Your task to perform on an android device: Search for "macbook pro" on amazon.com, select the first entry, and add it to the cart. Image 0: 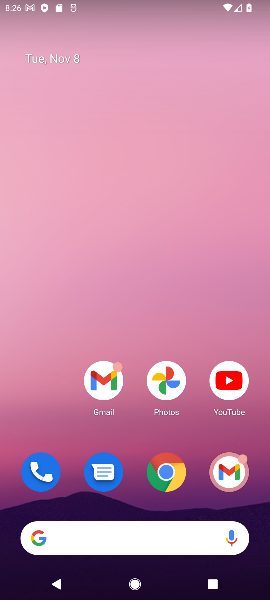
Step 0: click (171, 467)
Your task to perform on an android device: Search for "macbook pro" on amazon.com, select the first entry, and add it to the cart. Image 1: 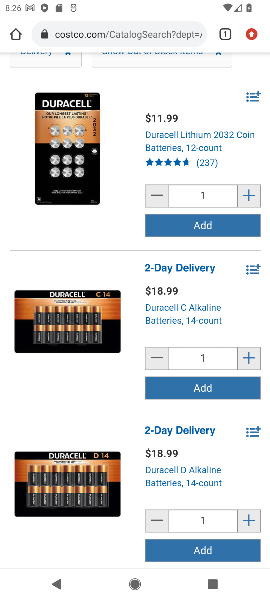
Step 1: click (148, 30)
Your task to perform on an android device: Search for "macbook pro" on amazon.com, select the first entry, and add it to the cart. Image 2: 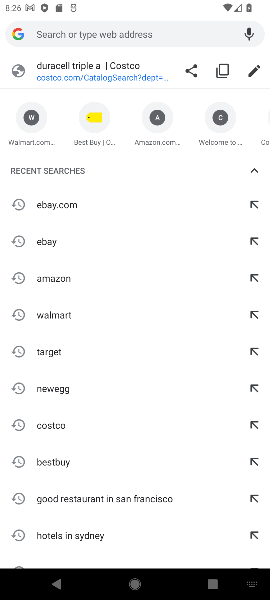
Step 2: click (57, 273)
Your task to perform on an android device: Search for "macbook pro" on amazon.com, select the first entry, and add it to the cart. Image 3: 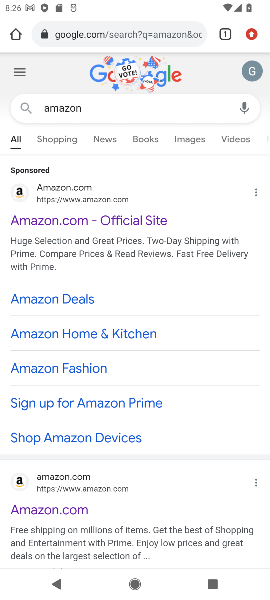
Step 3: click (71, 222)
Your task to perform on an android device: Search for "macbook pro" on amazon.com, select the first entry, and add it to the cart. Image 4: 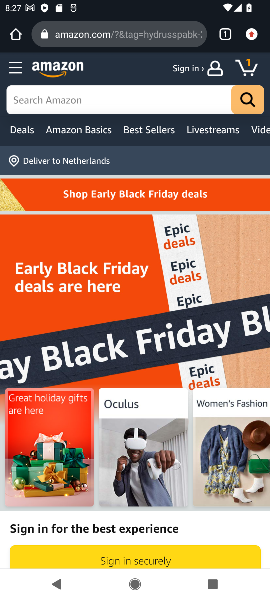
Step 4: click (95, 95)
Your task to perform on an android device: Search for "macbook pro" on amazon.com, select the first entry, and add it to the cart. Image 5: 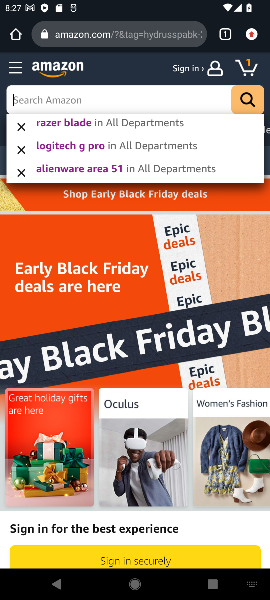
Step 5: type "macbook pro"
Your task to perform on an android device: Search for "macbook pro" on amazon.com, select the first entry, and add it to the cart. Image 6: 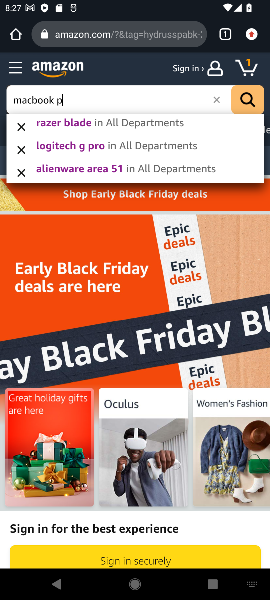
Step 6: press enter
Your task to perform on an android device: Search for "macbook pro" on amazon.com, select the first entry, and add it to the cart. Image 7: 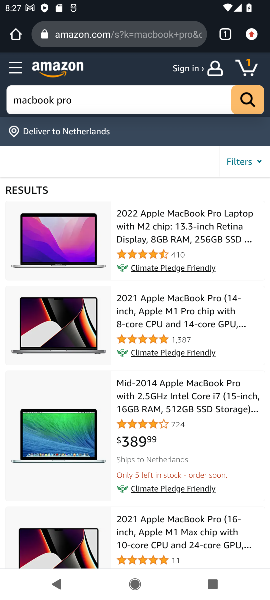
Step 7: click (190, 228)
Your task to perform on an android device: Search for "macbook pro" on amazon.com, select the first entry, and add it to the cart. Image 8: 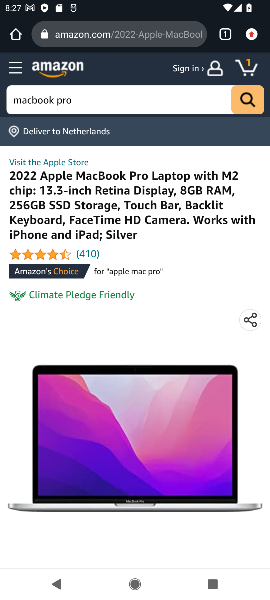
Step 8: task complete